Your task to perform on an android device: Google the capital of Canada Image 0: 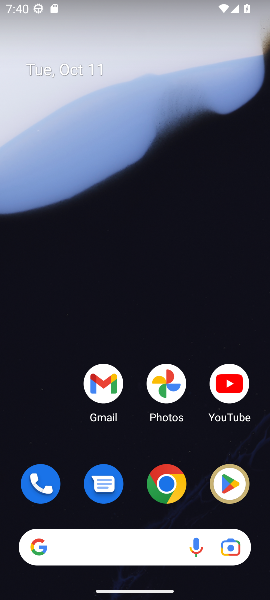
Step 0: drag from (124, 134) to (233, 76)
Your task to perform on an android device: Google the capital of Canada Image 1: 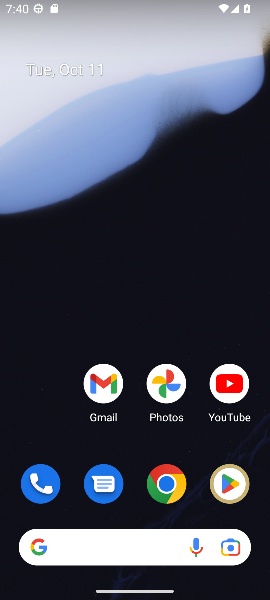
Step 1: drag from (118, 537) to (139, 18)
Your task to perform on an android device: Google the capital of Canada Image 2: 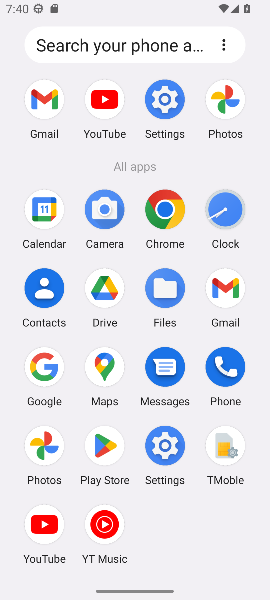
Step 2: click (147, 201)
Your task to perform on an android device: Google the capital of Canada Image 3: 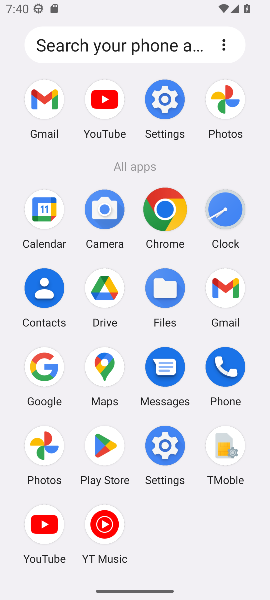
Step 3: click (177, 215)
Your task to perform on an android device: Google the capital of Canada Image 4: 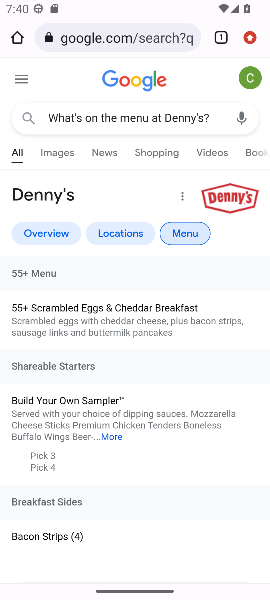
Step 4: click (163, 47)
Your task to perform on an android device: Google the capital of Canada Image 5: 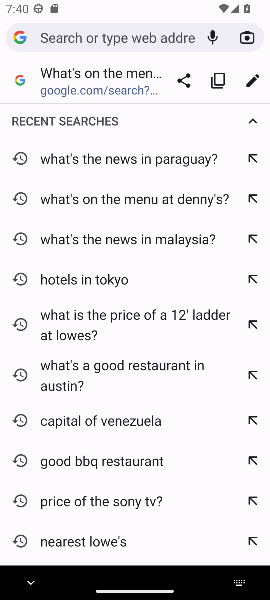
Step 5: type "capital of Canada"
Your task to perform on an android device: Google the capital of Canada Image 6: 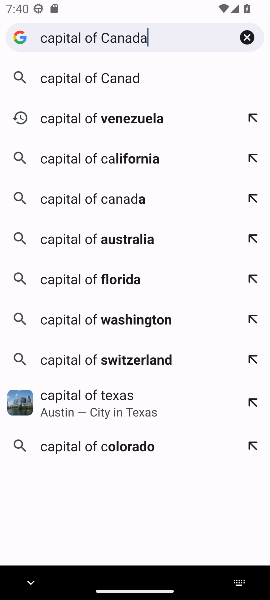
Step 6: press enter
Your task to perform on an android device: Google the capital of Canada Image 7: 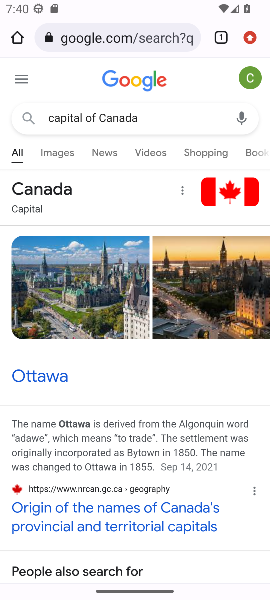
Step 7: task complete